Your task to perform on an android device: Open ESPN.com Image 0: 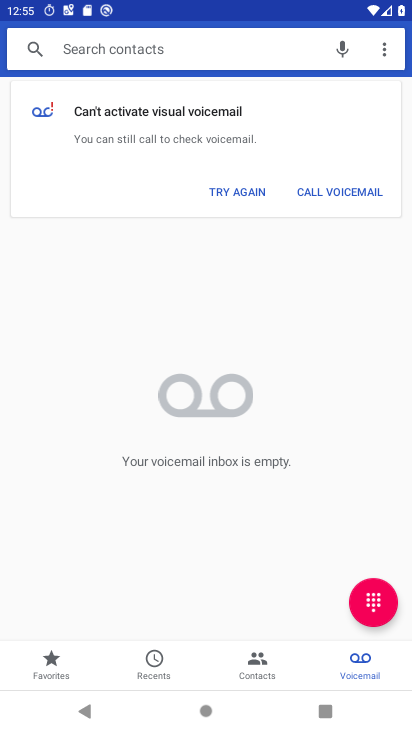
Step 0: press home button
Your task to perform on an android device: Open ESPN.com Image 1: 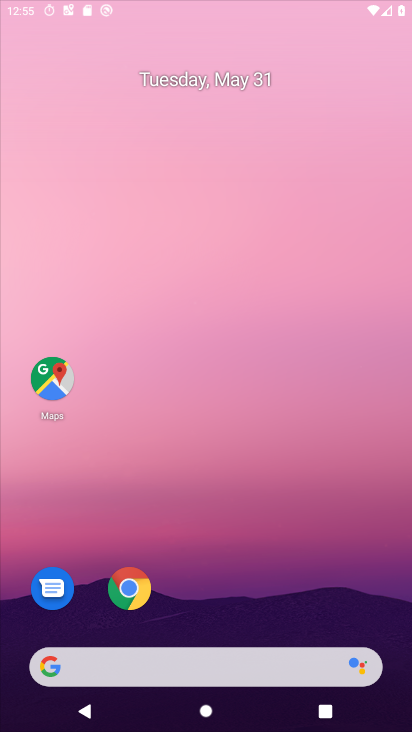
Step 1: drag from (267, 684) to (221, 122)
Your task to perform on an android device: Open ESPN.com Image 2: 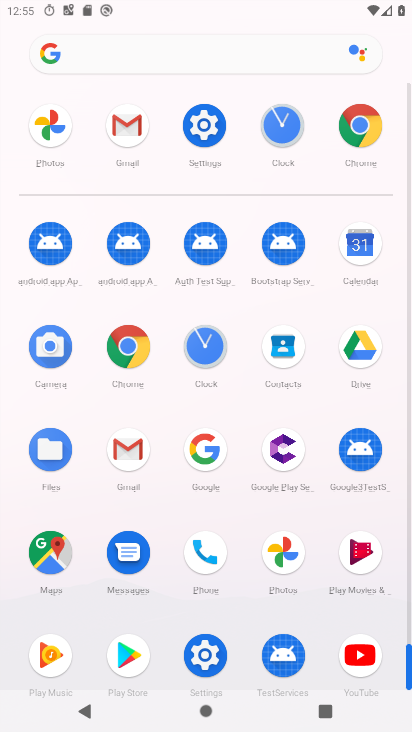
Step 2: click (138, 367)
Your task to perform on an android device: Open ESPN.com Image 3: 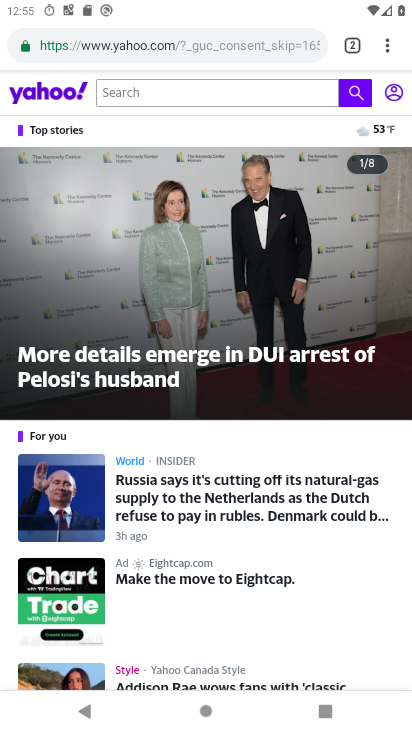
Step 3: click (236, 44)
Your task to perform on an android device: Open ESPN.com Image 4: 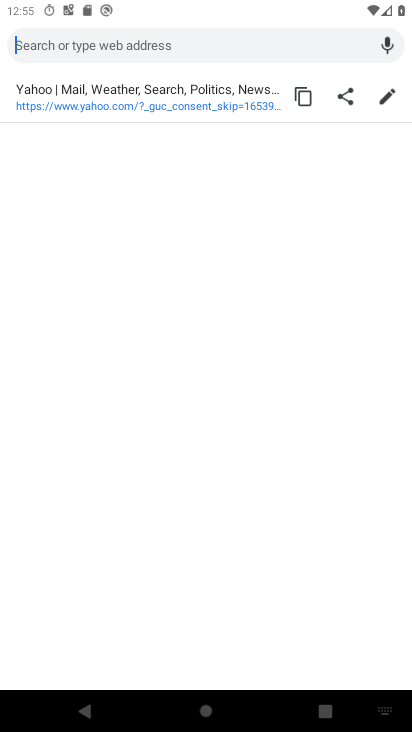
Step 4: type "espn.om"
Your task to perform on an android device: Open ESPN.com Image 5: 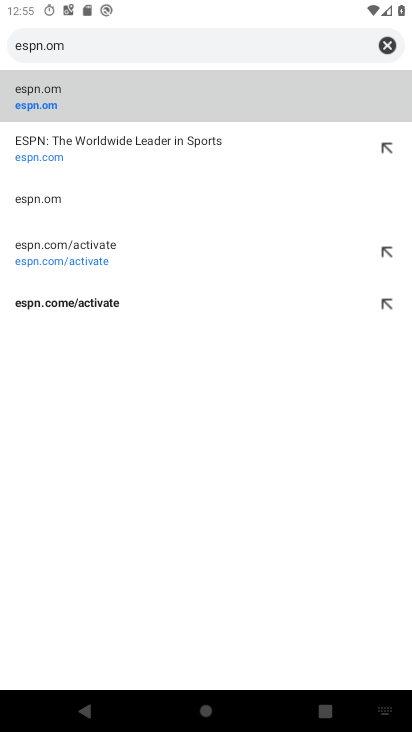
Step 5: click (123, 158)
Your task to perform on an android device: Open ESPN.com Image 6: 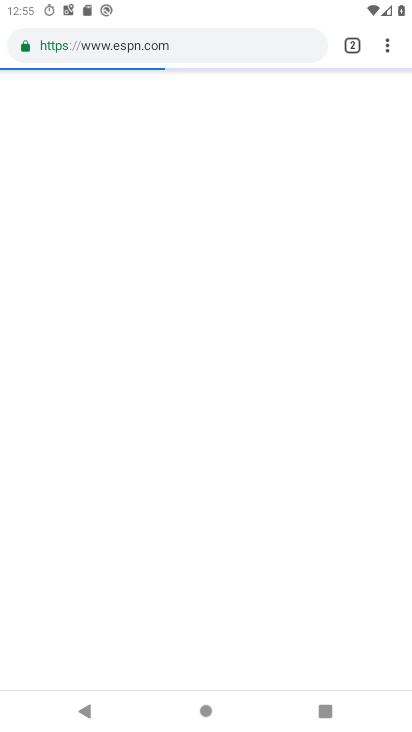
Step 6: task complete